Your task to perform on an android device: toggle translation in the chrome app Image 0: 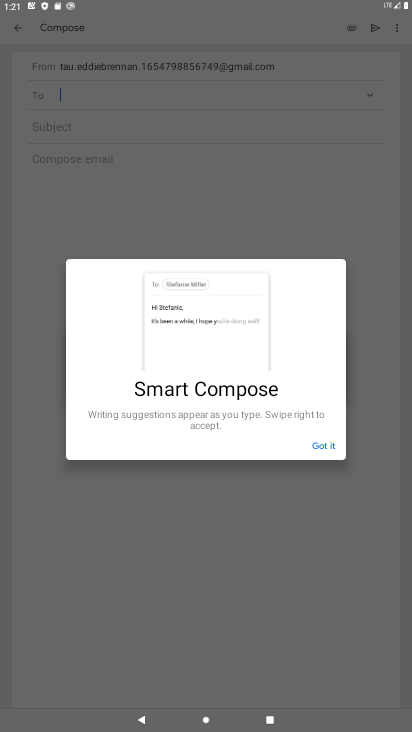
Step 0: press home button
Your task to perform on an android device: toggle translation in the chrome app Image 1: 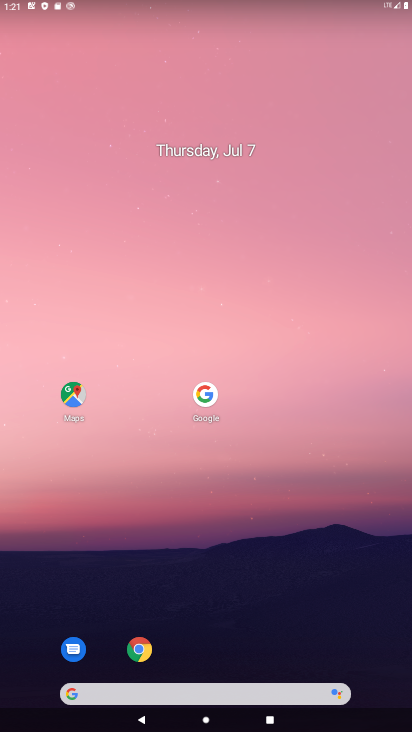
Step 1: click (143, 657)
Your task to perform on an android device: toggle translation in the chrome app Image 2: 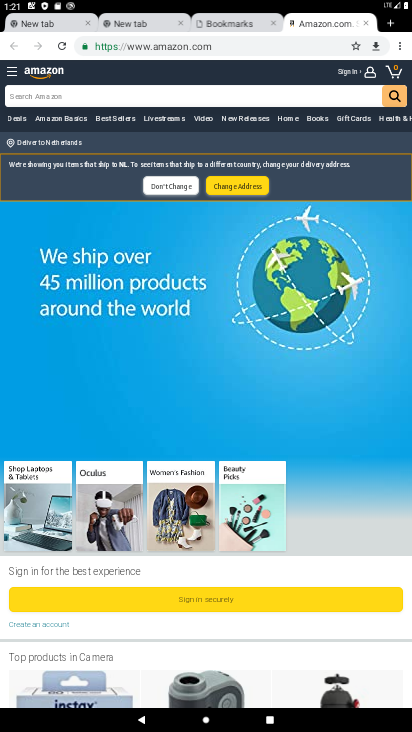
Step 2: click (400, 46)
Your task to perform on an android device: toggle translation in the chrome app Image 3: 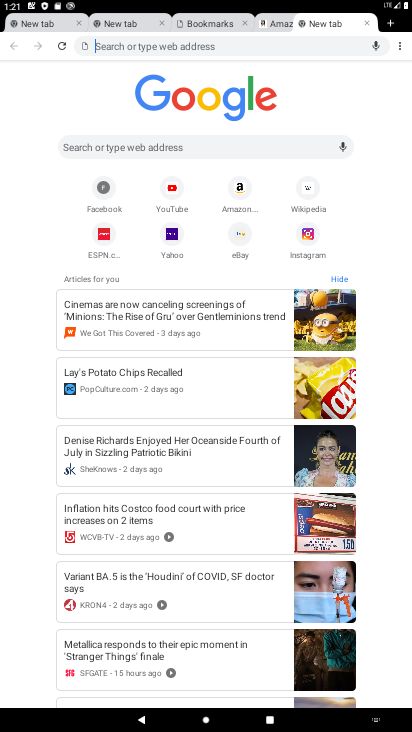
Step 3: drag from (400, 46) to (311, 214)
Your task to perform on an android device: toggle translation in the chrome app Image 4: 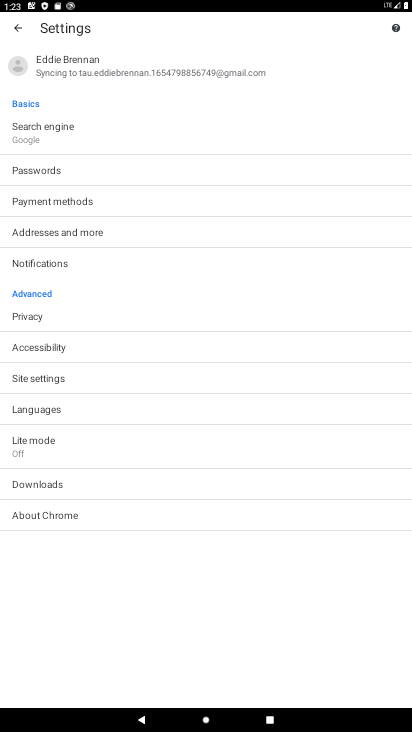
Step 4: click (49, 408)
Your task to perform on an android device: toggle translation in the chrome app Image 5: 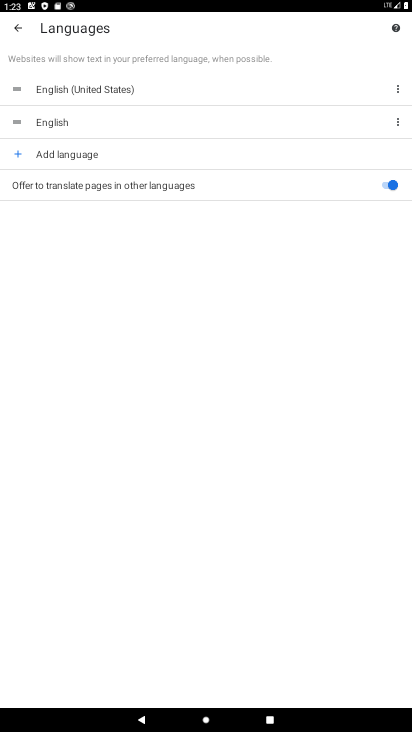
Step 5: click (377, 182)
Your task to perform on an android device: toggle translation in the chrome app Image 6: 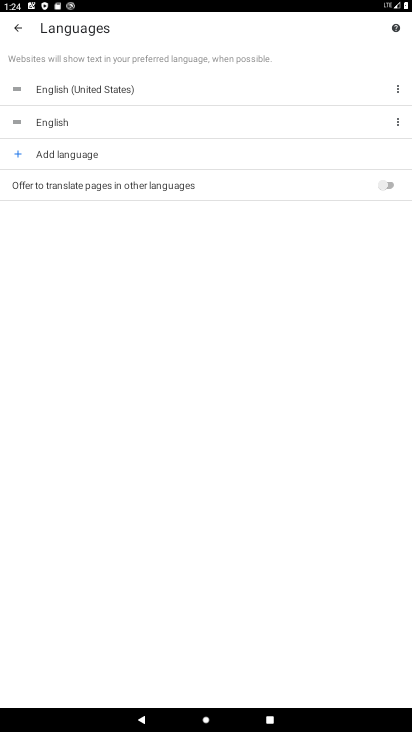
Step 6: task complete